Your task to perform on an android device: Open wifi settings Image 0: 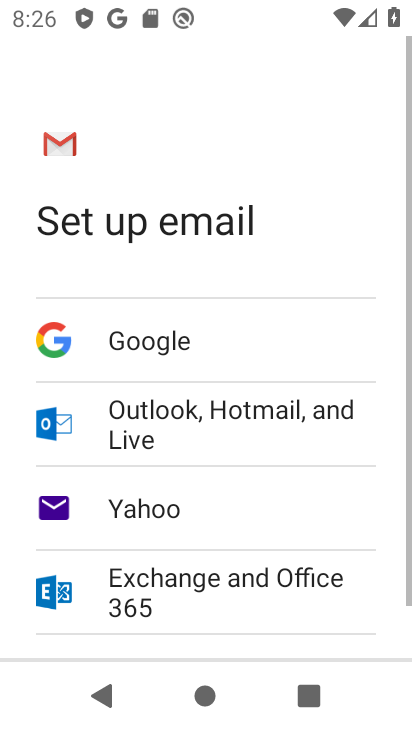
Step 0: press back button
Your task to perform on an android device: Open wifi settings Image 1: 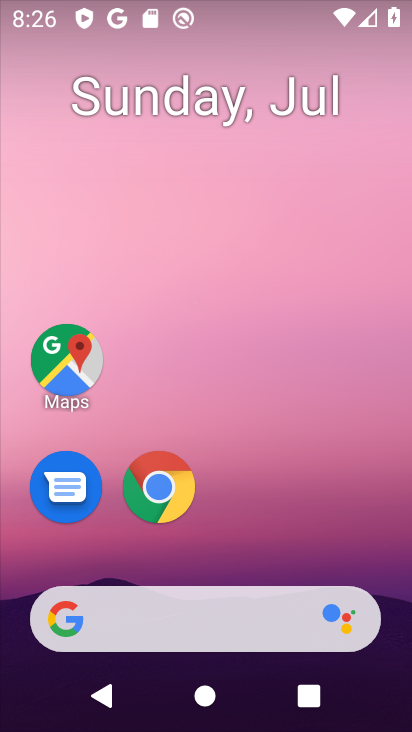
Step 1: drag from (161, 51) to (131, 518)
Your task to perform on an android device: Open wifi settings Image 2: 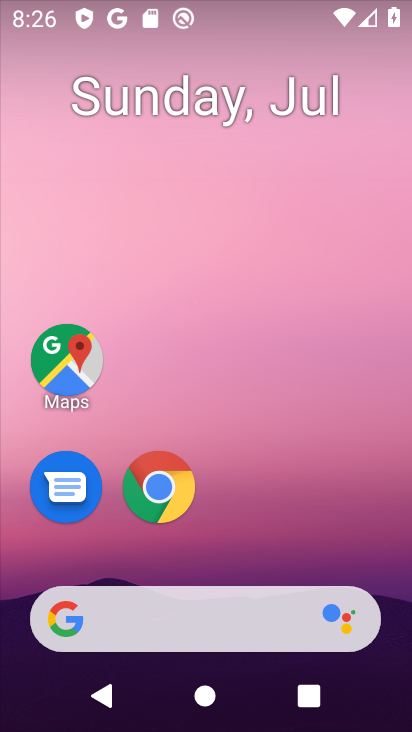
Step 2: drag from (103, 30) to (151, 466)
Your task to perform on an android device: Open wifi settings Image 3: 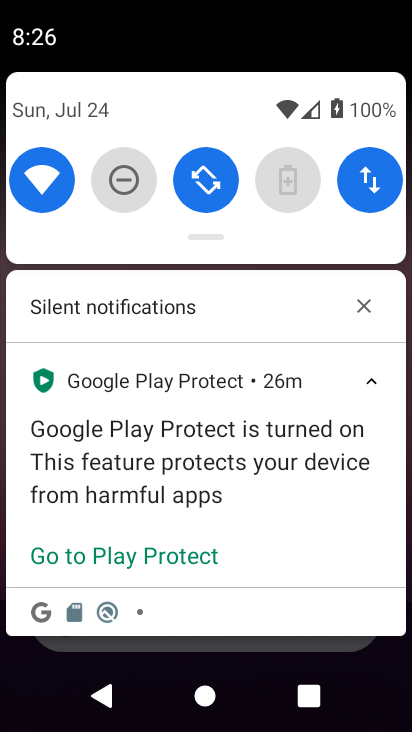
Step 3: click (42, 170)
Your task to perform on an android device: Open wifi settings Image 4: 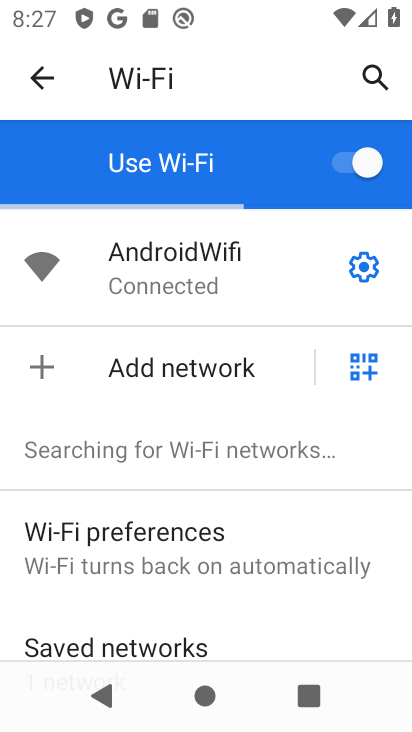
Step 4: task complete